Your task to perform on an android device: What is the recent news? Image 0: 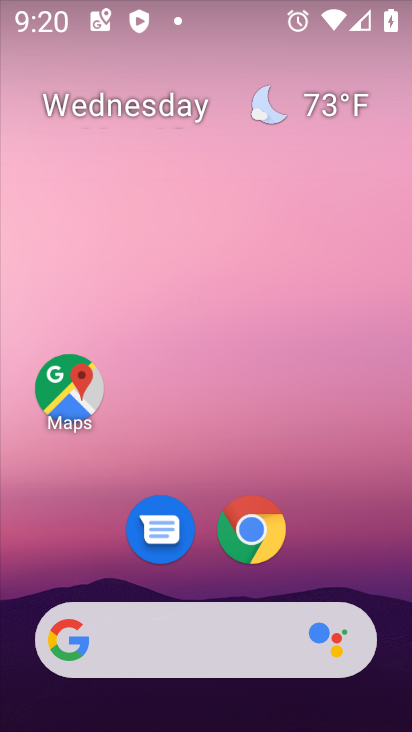
Step 0: drag from (8, 277) to (371, 331)
Your task to perform on an android device: What is the recent news? Image 1: 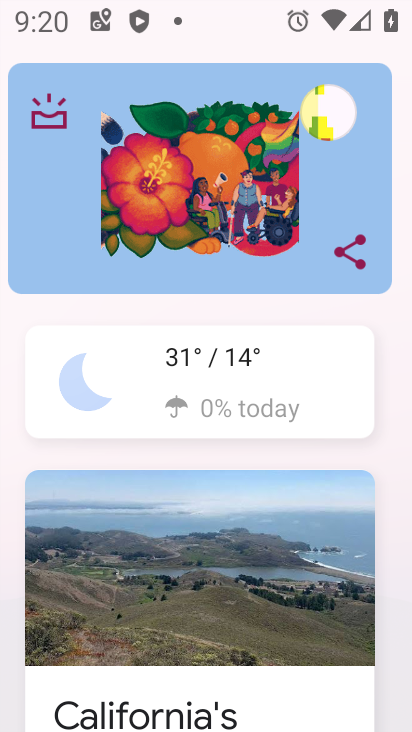
Step 1: task complete